Your task to perform on an android device: Open the map Image 0: 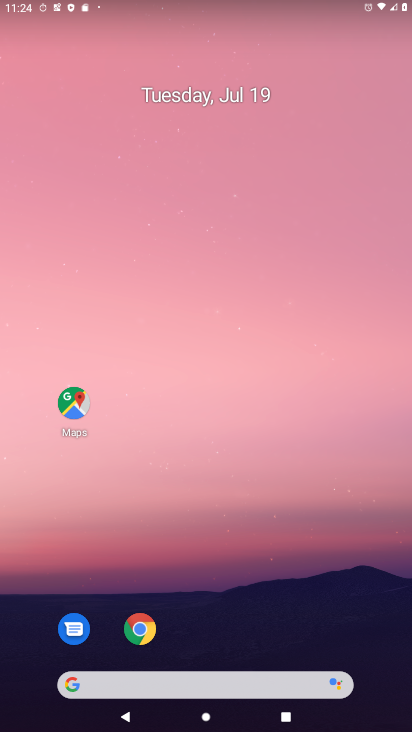
Step 0: click (139, 172)
Your task to perform on an android device: Open the map Image 1: 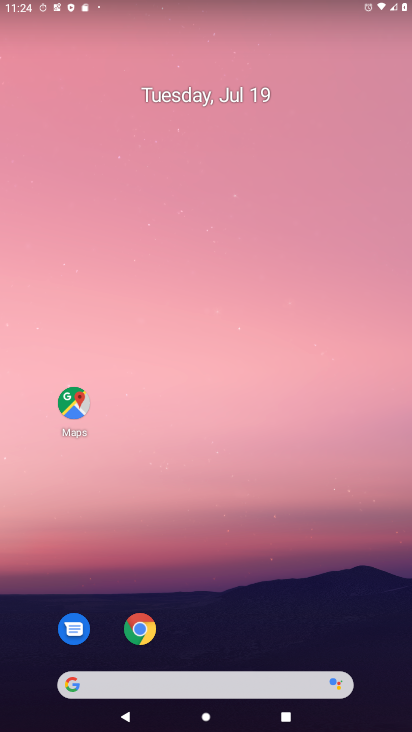
Step 1: drag from (168, 410) to (111, 150)
Your task to perform on an android device: Open the map Image 2: 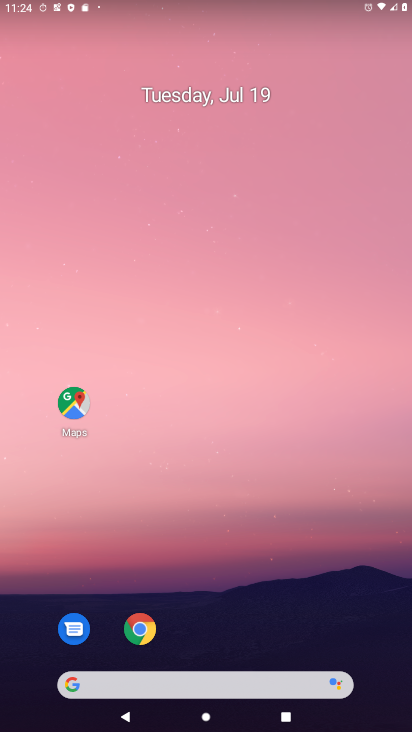
Step 2: drag from (220, 549) to (156, 121)
Your task to perform on an android device: Open the map Image 3: 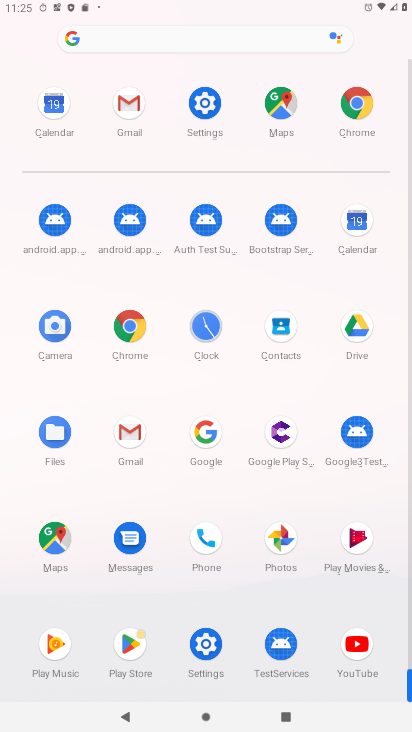
Step 3: click (49, 544)
Your task to perform on an android device: Open the map Image 4: 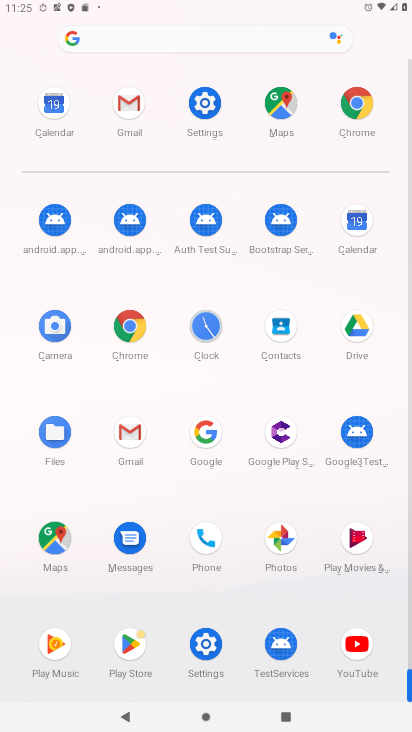
Step 4: click (49, 544)
Your task to perform on an android device: Open the map Image 5: 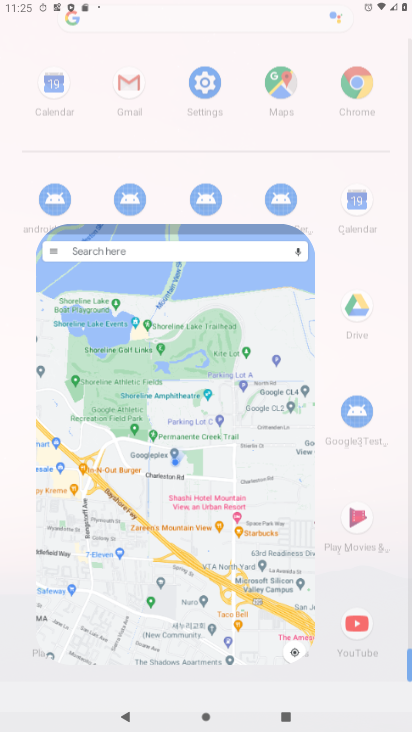
Step 5: click (59, 542)
Your task to perform on an android device: Open the map Image 6: 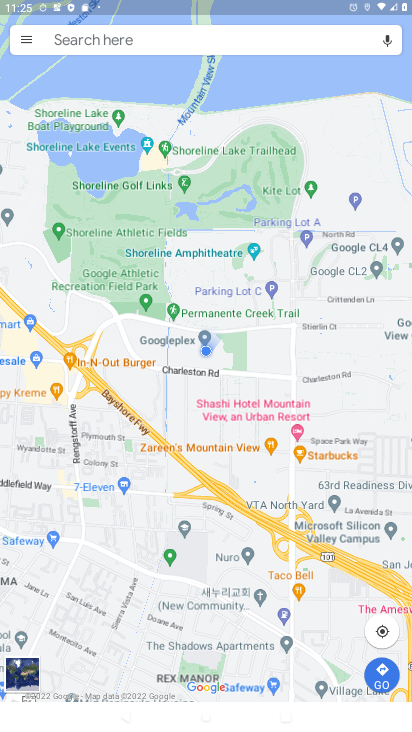
Step 6: task complete